Your task to perform on an android device: What is the news today? Image 0: 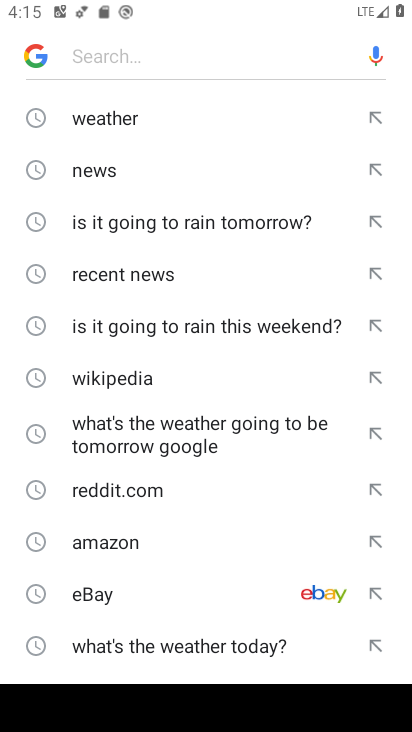
Step 0: press home button
Your task to perform on an android device: What is the news today? Image 1: 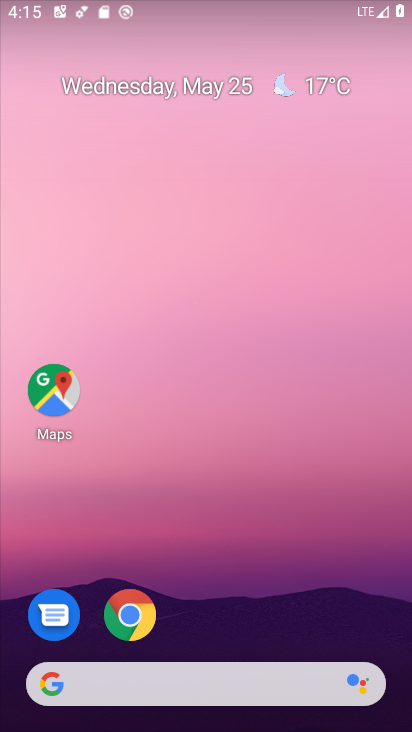
Step 1: drag from (287, 558) to (163, 50)
Your task to perform on an android device: What is the news today? Image 2: 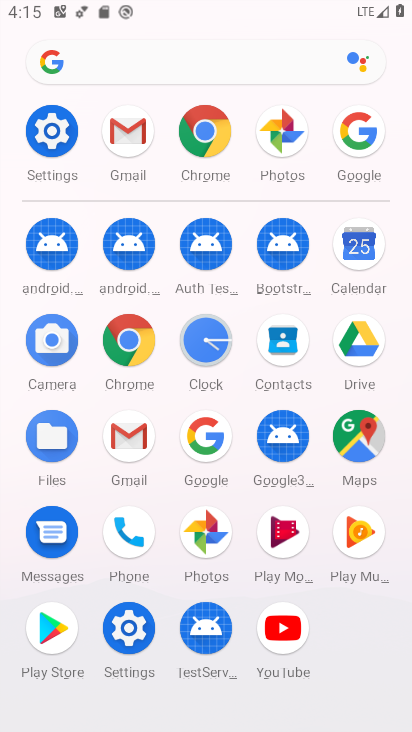
Step 2: click (210, 445)
Your task to perform on an android device: What is the news today? Image 3: 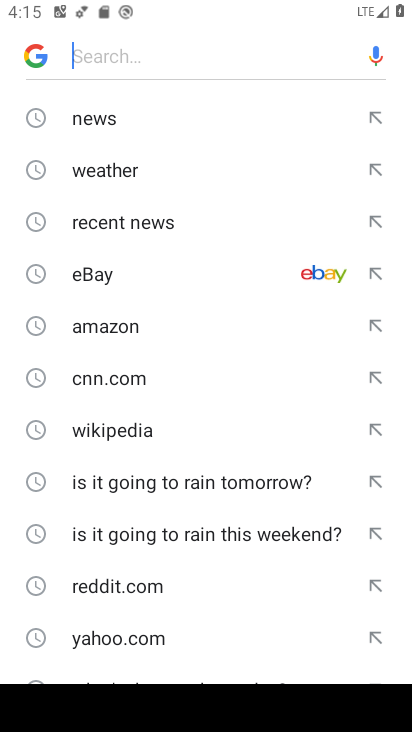
Step 3: click (157, 122)
Your task to perform on an android device: What is the news today? Image 4: 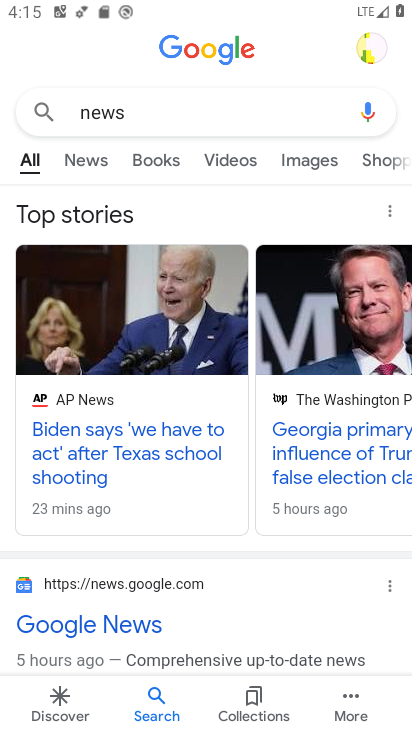
Step 4: task complete